Your task to perform on an android device: turn pop-ups on in chrome Image 0: 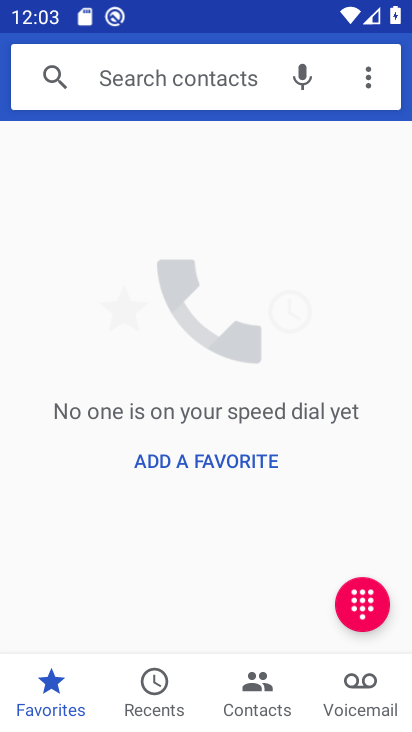
Step 0: press home button
Your task to perform on an android device: turn pop-ups on in chrome Image 1: 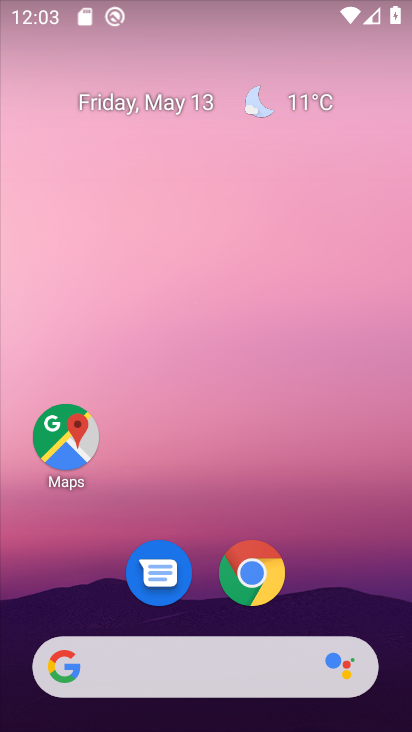
Step 1: drag from (391, 512) to (407, 107)
Your task to perform on an android device: turn pop-ups on in chrome Image 2: 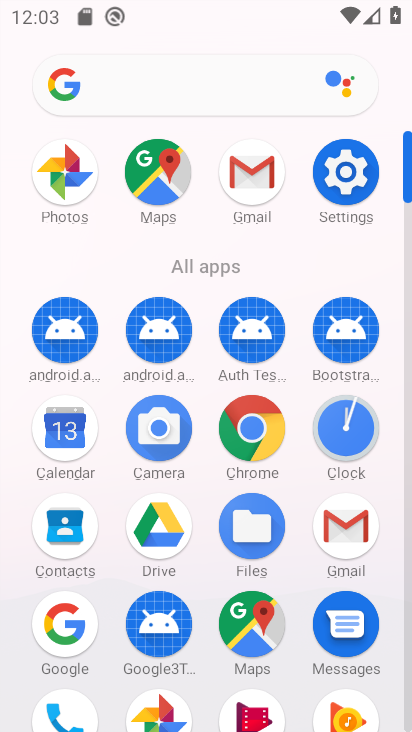
Step 2: click (247, 431)
Your task to perform on an android device: turn pop-ups on in chrome Image 3: 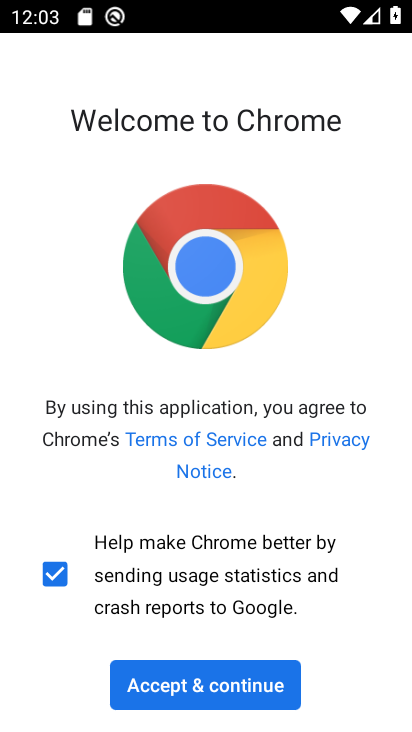
Step 3: click (201, 688)
Your task to perform on an android device: turn pop-ups on in chrome Image 4: 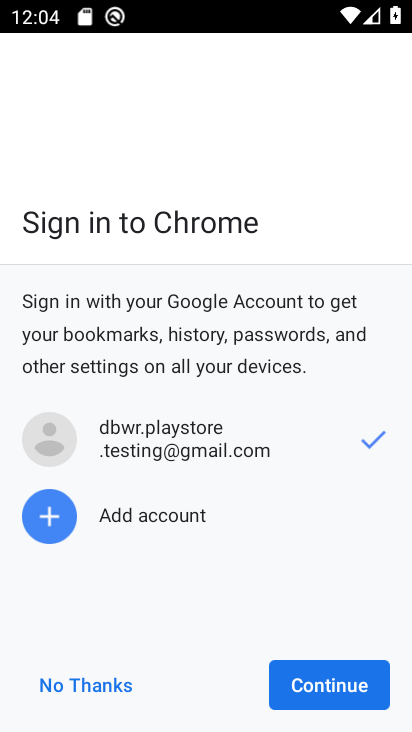
Step 4: click (384, 682)
Your task to perform on an android device: turn pop-ups on in chrome Image 5: 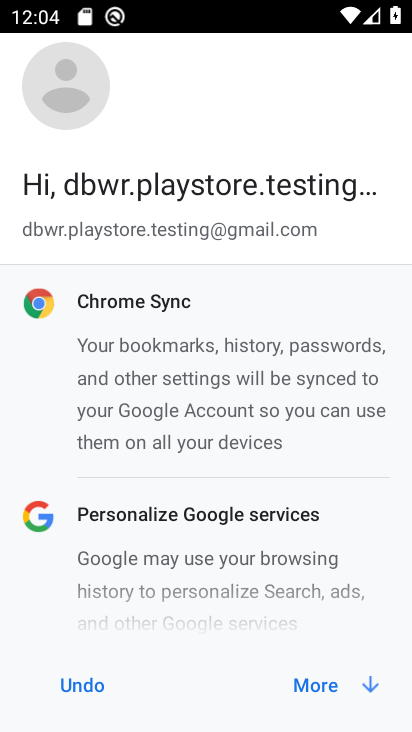
Step 5: click (304, 670)
Your task to perform on an android device: turn pop-ups on in chrome Image 6: 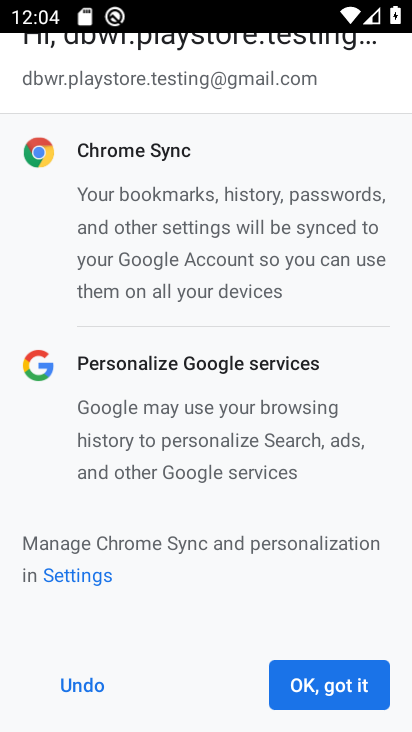
Step 6: click (304, 670)
Your task to perform on an android device: turn pop-ups on in chrome Image 7: 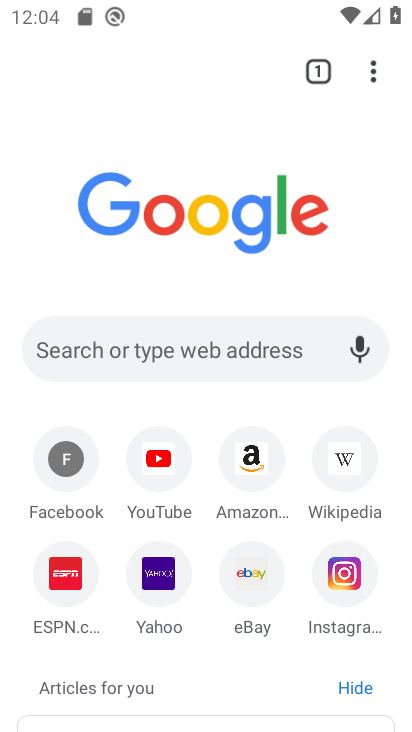
Step 7: drag from (358, 62) to (192, 630)
Your task to perform on an android device: turn pop-ups on in chrome Image 8: 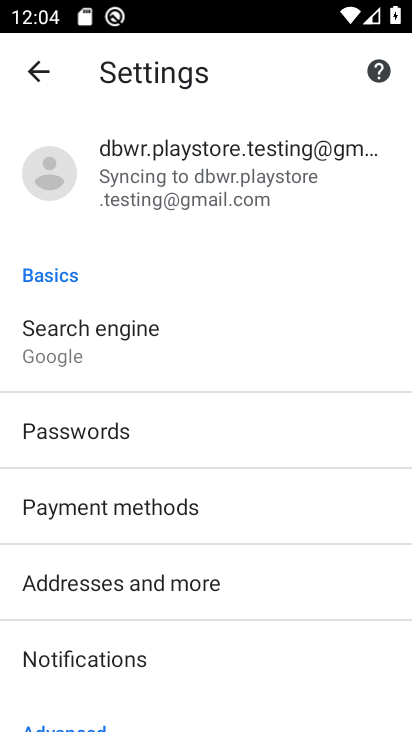
Step 8: drag from (201, 617) to (176, 231)
Your task to perform on an android device: turn pop-ups on in chrome Image 9: 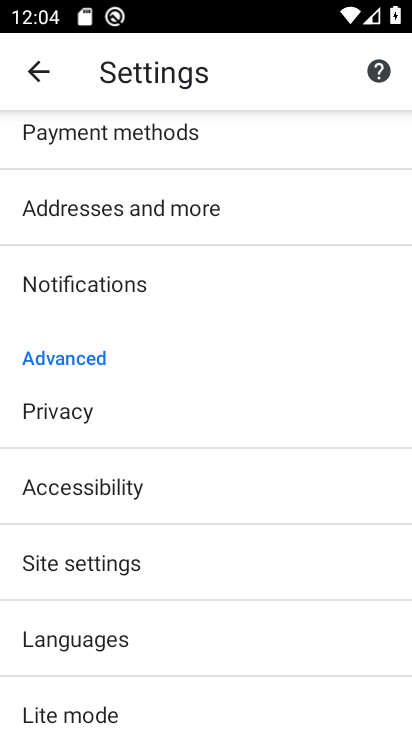
Step 9: drag from (185, 649) to (167, 146)
Your task to perform on an android device: turn pop-ups on in chrome Image 10: 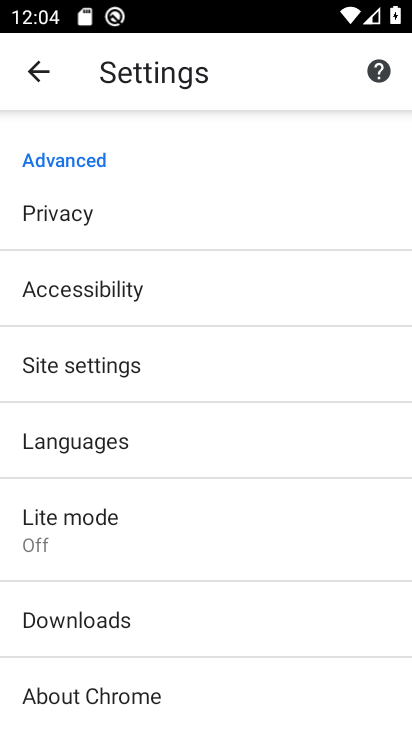
Step 10: drag from (241, 561) to (194, 140)
Your task to perform on an android device: turn pop-ups on in chrome Image 11: 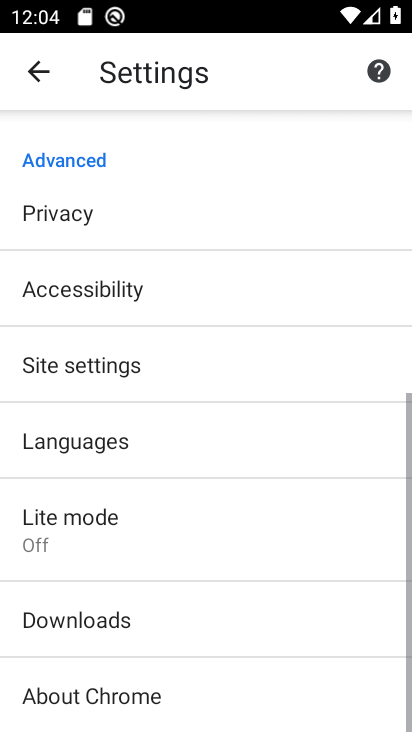
Step 11: click (85, 353)
Your task to perform on an android device: turn pop-ups on in chrome Image 12: 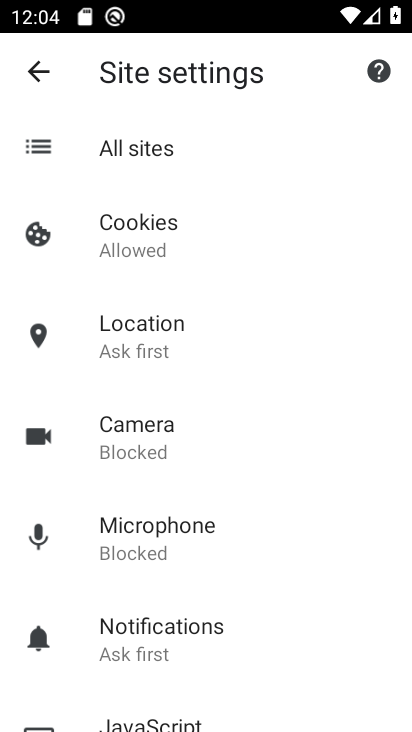
Step 12: drag from (167, 577) to (148, 244)
Your task to perform on an android device: turn pop-ups on in chrome Image 13: 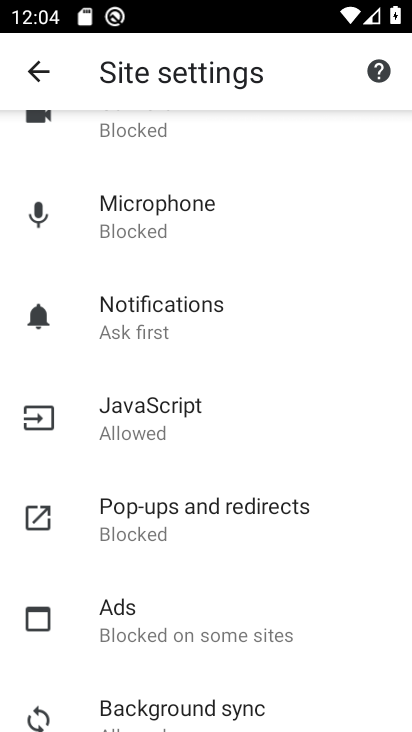
Step 13: click (151, 508)
Your task to perform on an android device: turn pop-ups on in chrome Image 14: 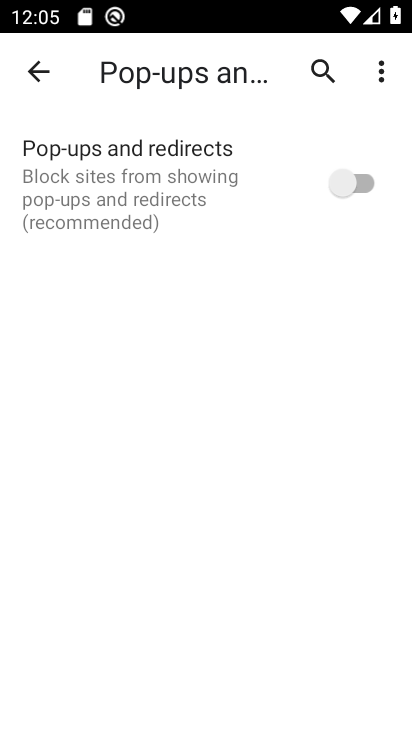
Step 14: click (370, 173)
Your task to perform on an android device: turn pop-ups on in chrome Image 15: 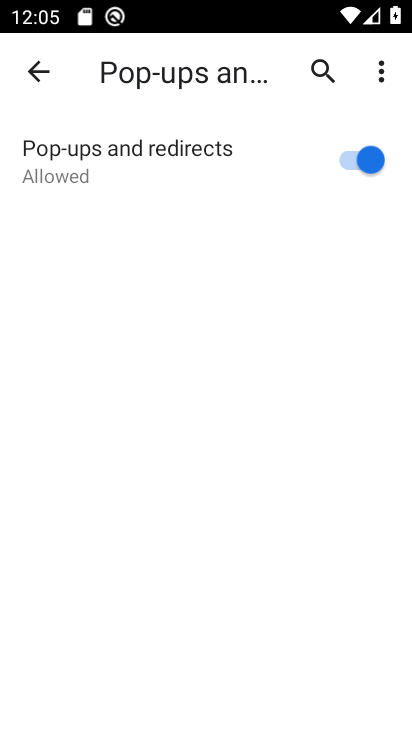
Step 15: task complete